Your task to perform on an android device: Do I have any events tomorrow? Image 0: 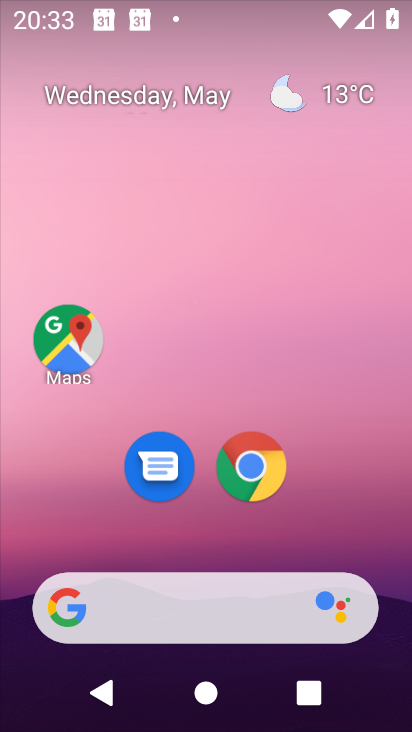
Step 0: press home button
Your task to perform on an android device: Do I have any events tomorrow? Image 1: 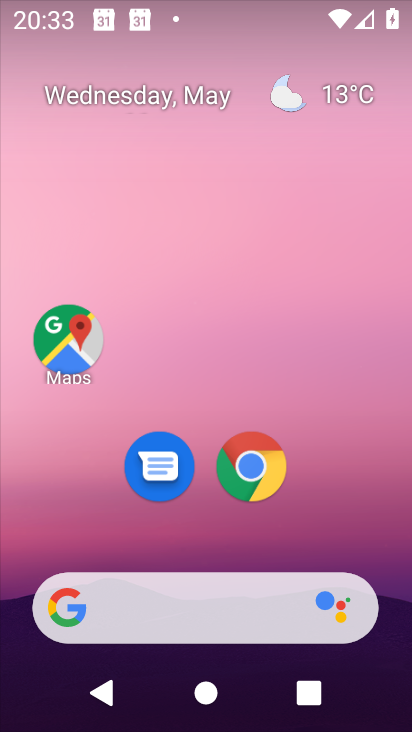
Step 1: drag from (206, 550) to (237, 106)
Your task to perform on an android device: Do I have any events tomorrow? Image 2: 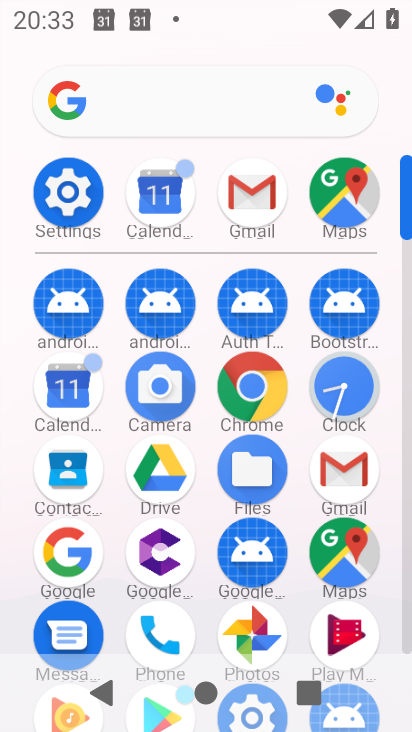
Step 2: click (73, 384)
Your task to perform on an android device: Do I have any events tomorrow? Image 3: 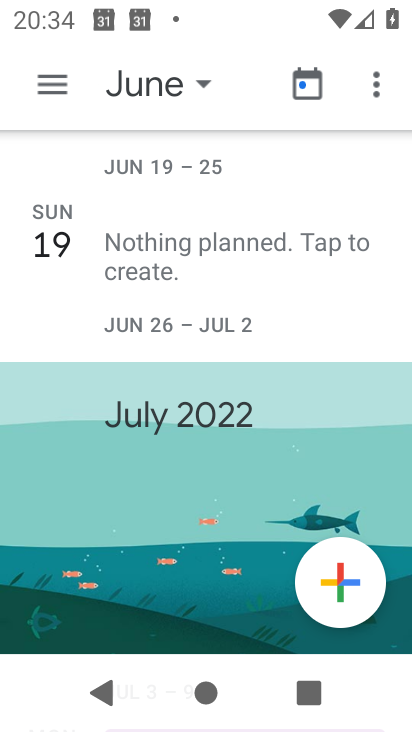
Step 3: click (51, 74)
Your task to perform on an android device: Do I have any events tomorrow? Image 4: 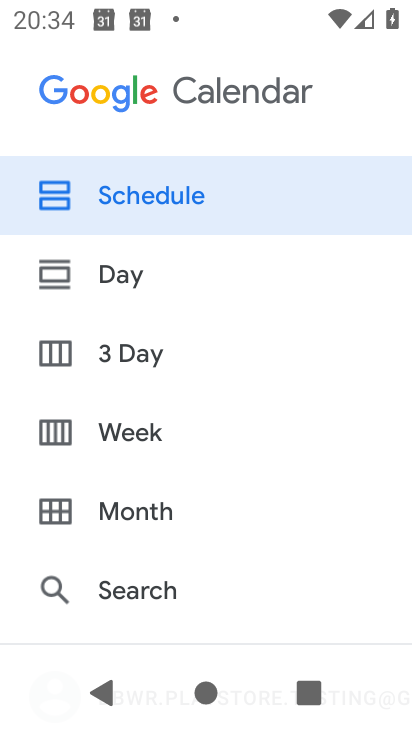
Step 4: click (87, 277)
Your task to perform on an android device: Do I have any events tomorrow? Image 5: 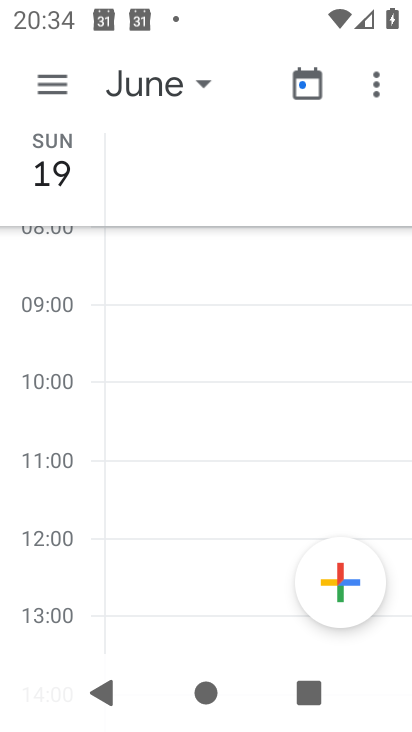
Step 5: click (197, 86)
Your task to perform on an android device: Do I have any events tomorrow? Image 6: 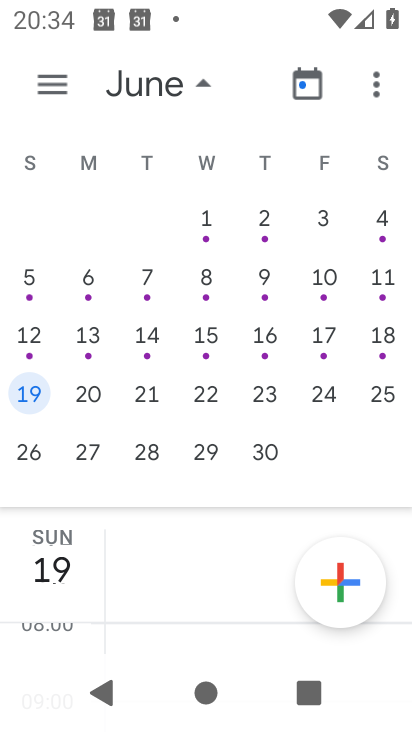
Step 6: drag from (43, 362) to (394, 327)
Your task to perform on an android device: Do I have any events tomorrow? Image 7: 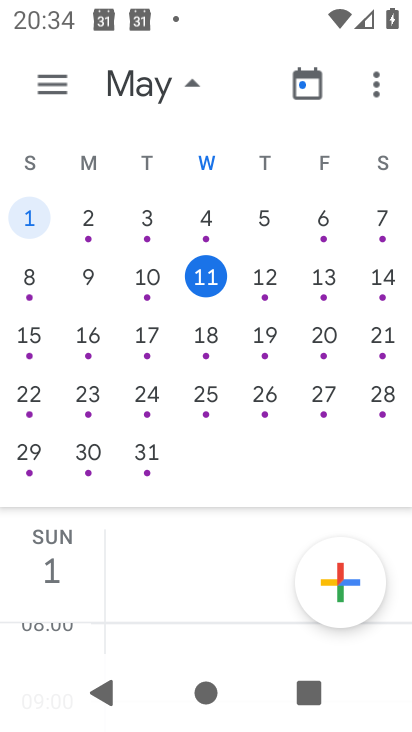
Step 7: click (268, 277)
Your task to perform on an android device: Do I have any events tomorrow? Image 8: 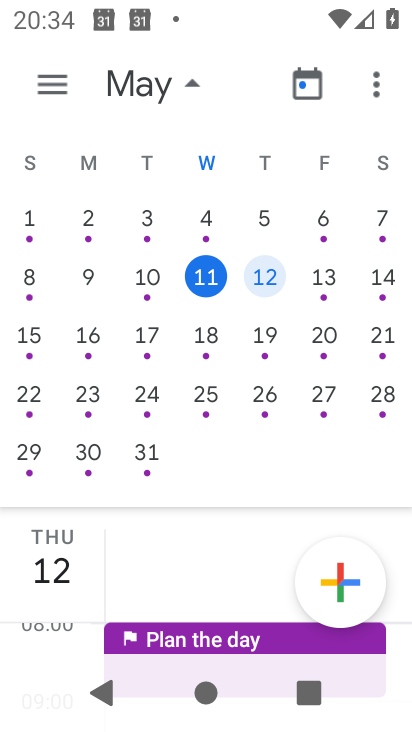
Step 8: task complete